Your task to perform on an android device: Turn on the flashlight Image 0: 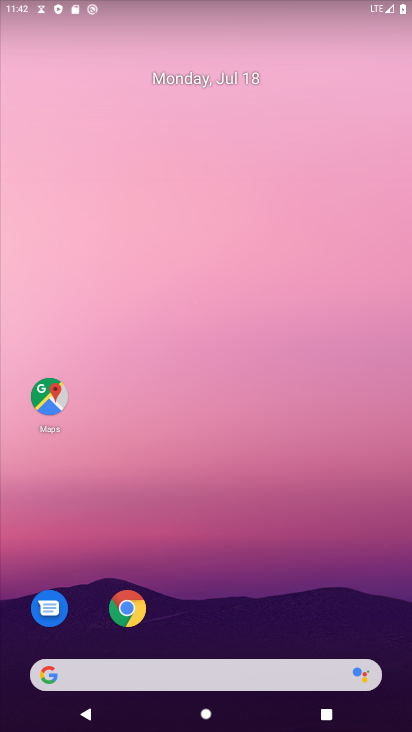
Step 0: drag from (332, 691) to (300, 74)
Your task to perform on an android device: Turn on the flashlight Image 1: 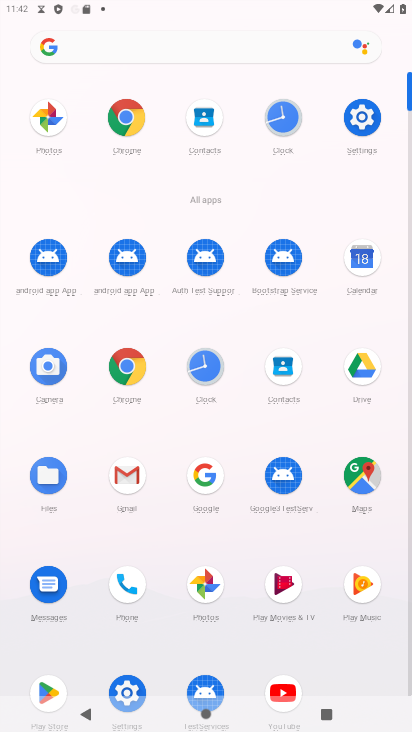
Step 1: task complete